Your task to perform on an android device: What's on my calendar today? Image 0: 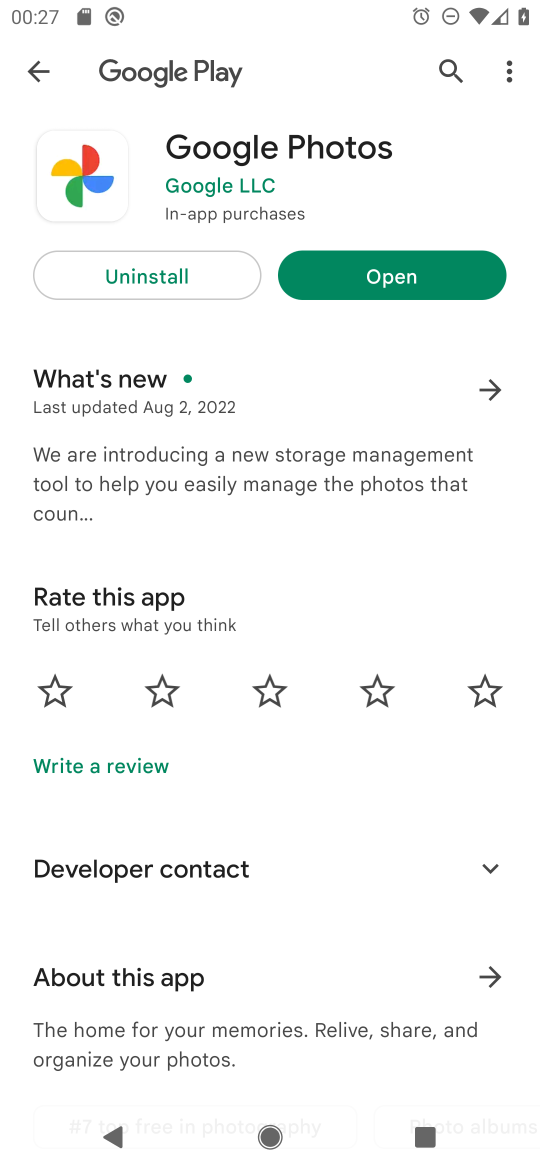
Step 0: press home button
Your task to perform on an android device: What's on my calendar today? Image 1: 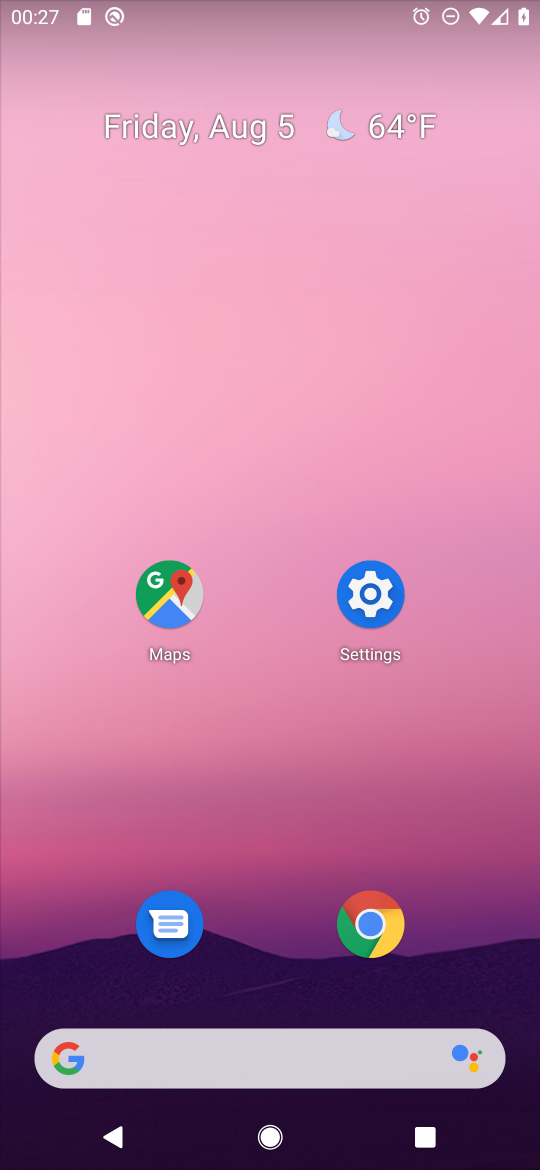
Step 1: drag from (311, 1050) to (349, 304)
Your task to perform on an android device: What's on my calendar today? Image 2: 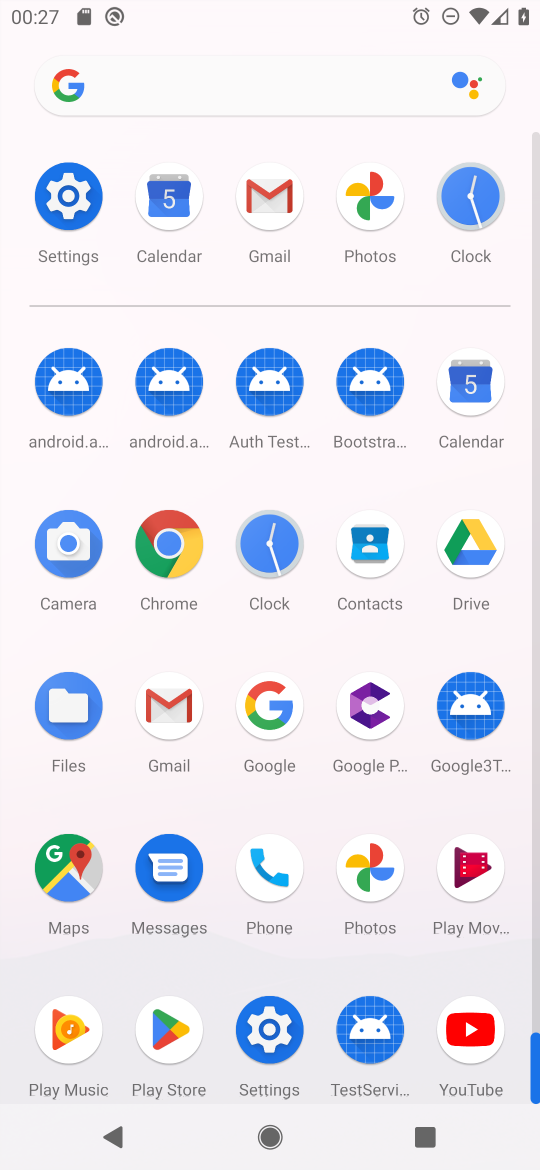
Step 2: click (165, 209)
Your task to perform on an android device: What's on my calendar today? Image 3: 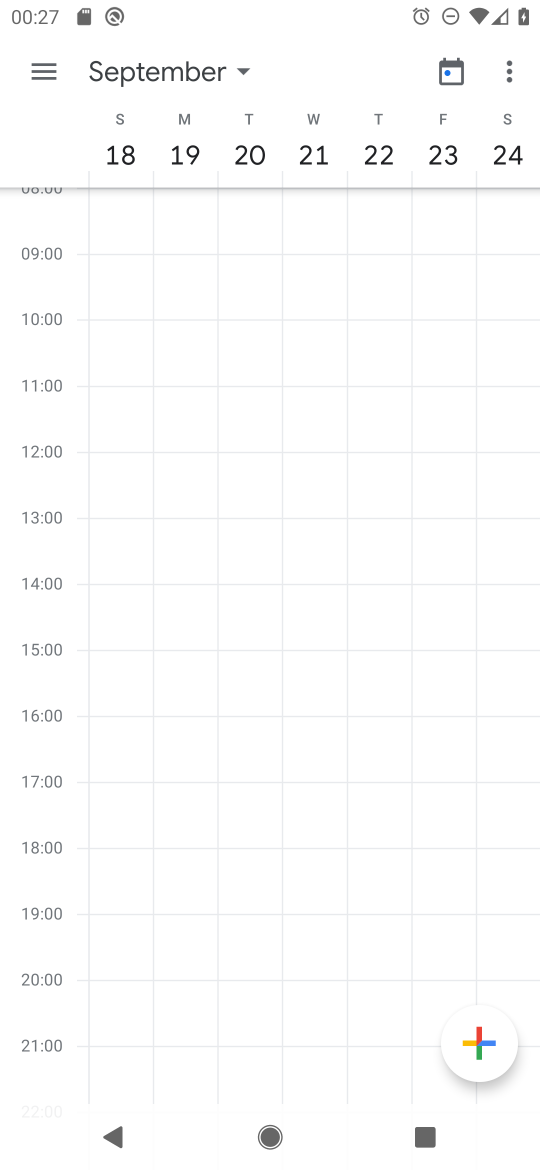
Step 3: click (158, 69)
Your task to perform on an android device: What's on my calendar today? Image 4: 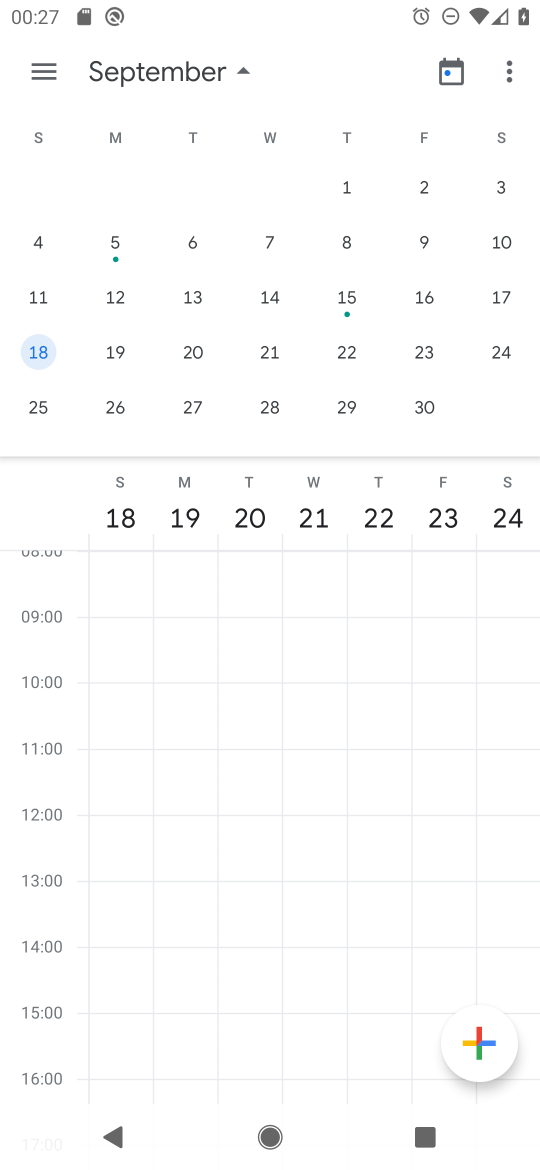
Step 4: drag from (172, 287) to (501, 425)
Your task to perform on an android device: What's on my calendar today? Image 5: 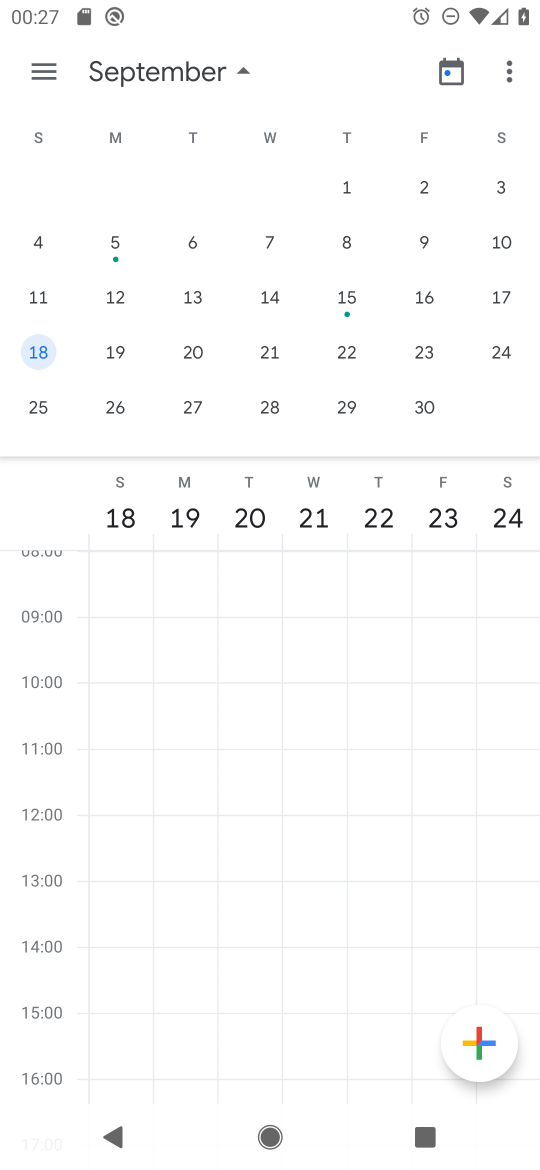
Step 5: drag from (107, 259) to (530, 381)
Your task to perform on an android device: What's on my calendar today? Image 6: 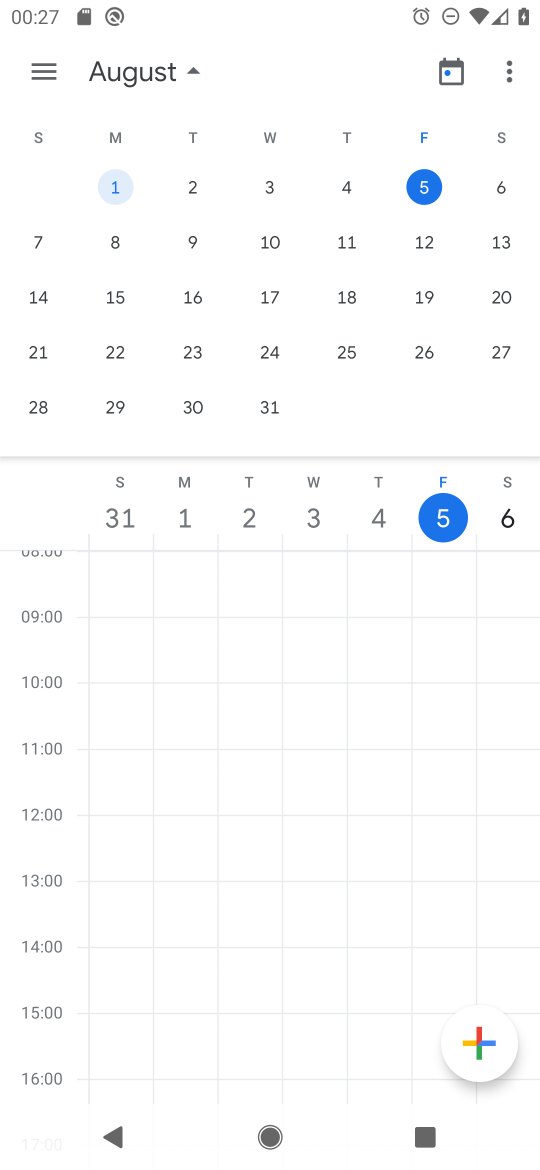
Step 6: click (430, 183)
Your task to perform on an android device: What's on my calendar today? Image 7: 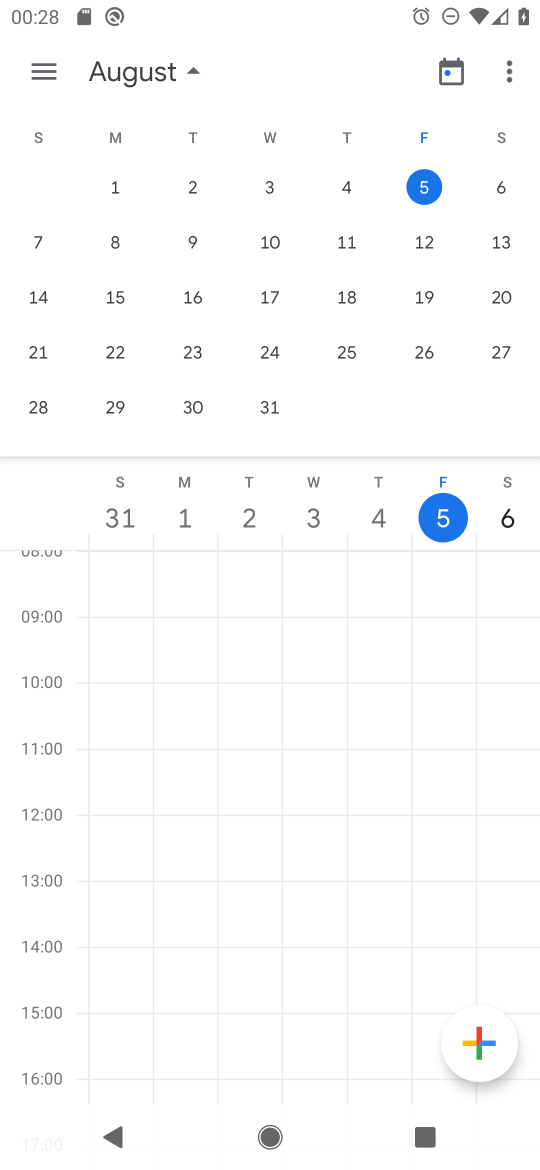
Step 7: click (40, 70)
Your task to perform on an android device: What's on my calendar today? Image 8: 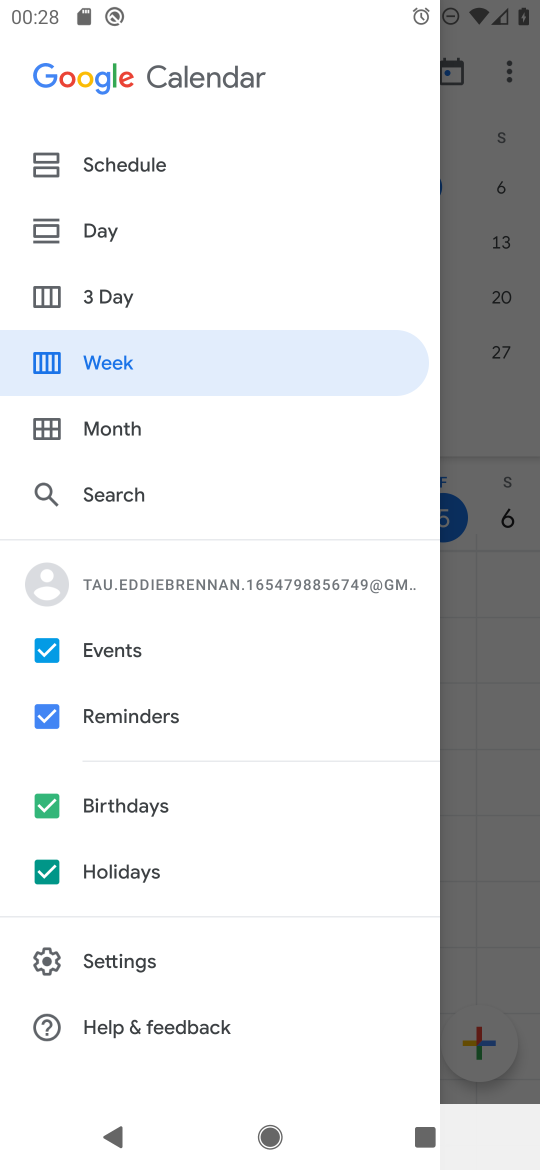
Step 8: click (97, 232)
Your task to perform on an android device: What's on my calendar today? Image 9: 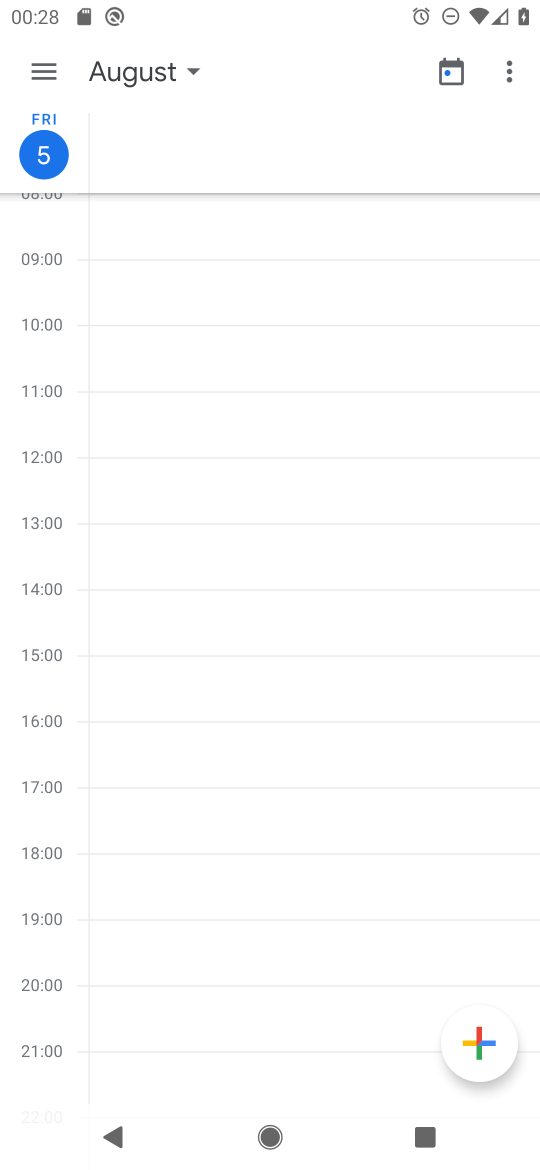
Step 9: click (38, 69)
Your task to perform on an android device: What's on my calendar today? Image 10: 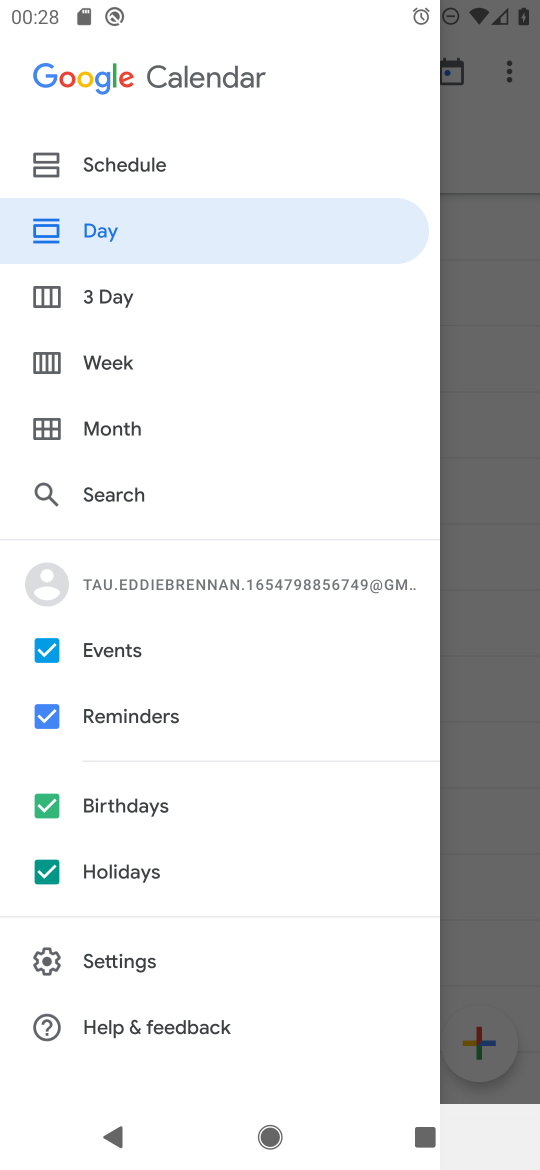
Step 10: click (142, 151)
Your task to perform on an android device: What's on my calendar today? Image 11: 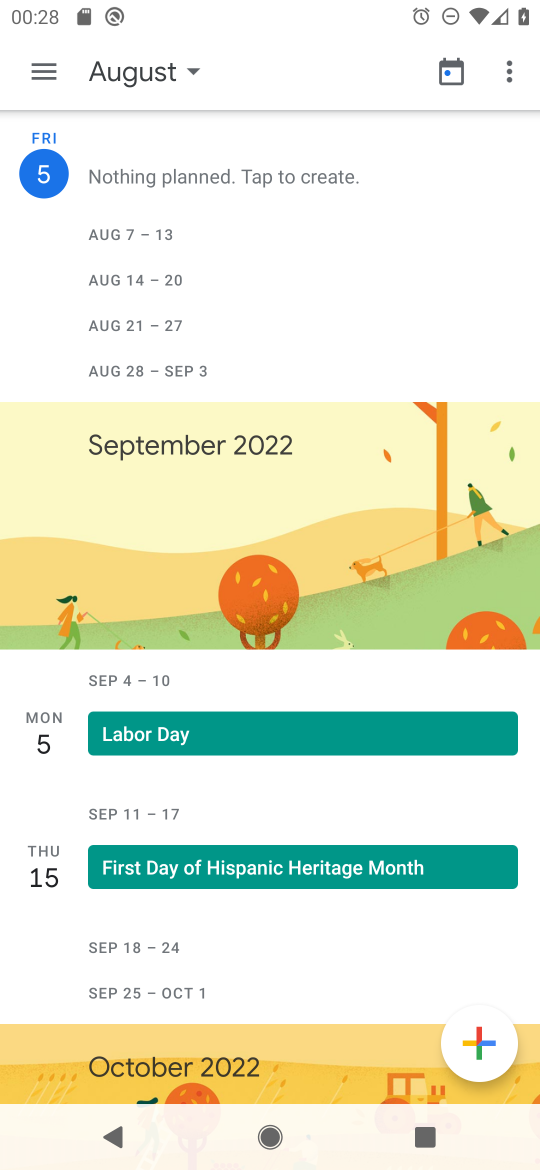
Step 11: task complete